Your task to perform on an android device: install app "YouTube Kids" Image 0: 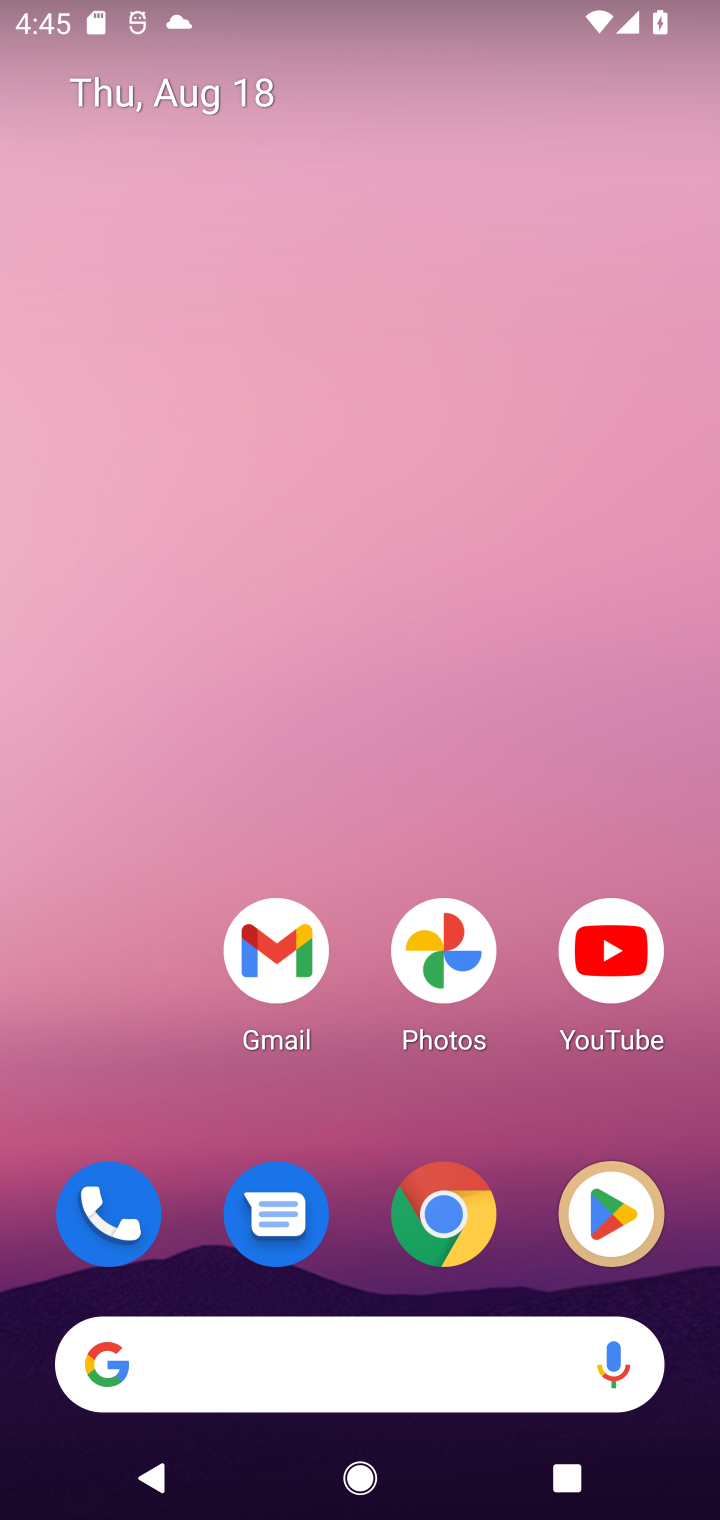
Step 0: drag from (377, 1284) to (328, 31)
Your task to perform on an android device: install app "YouTube Kids" Image 1: 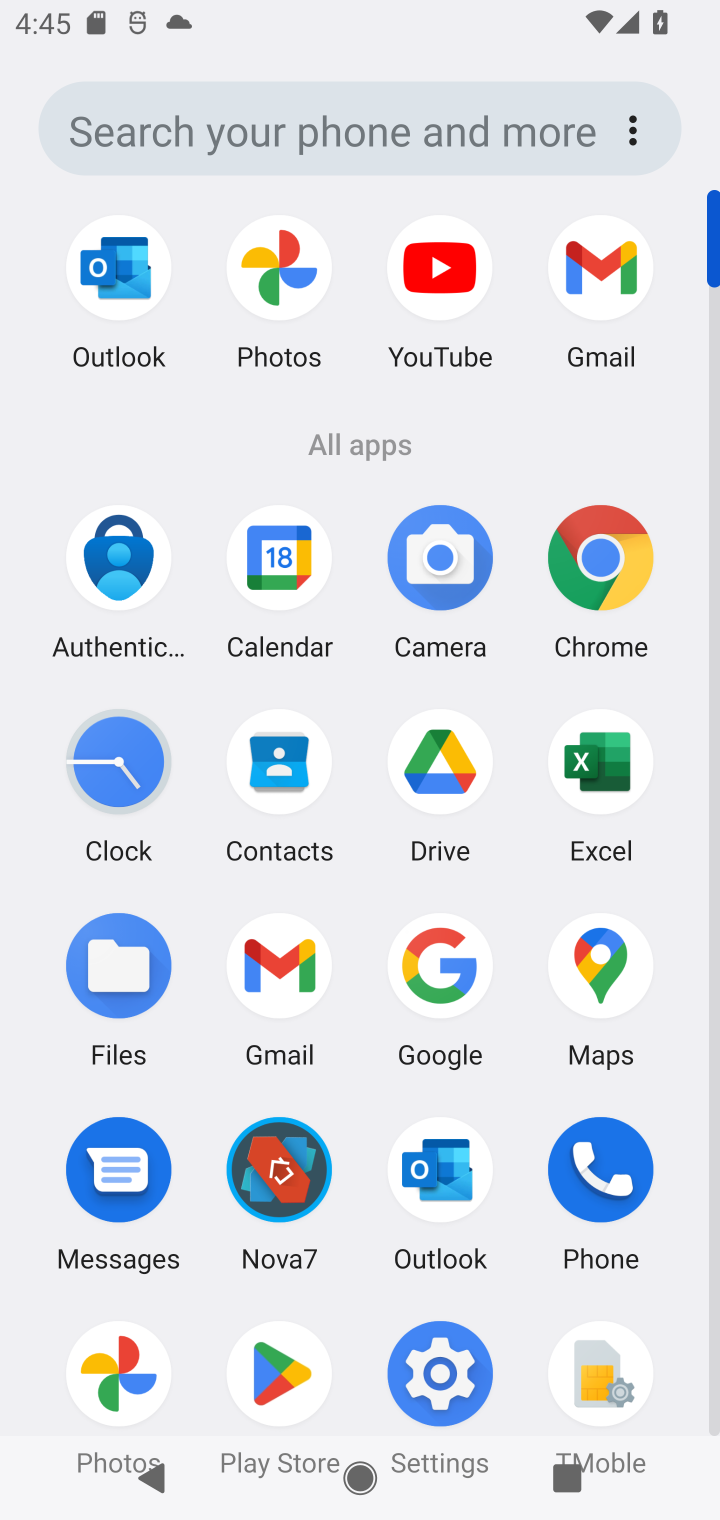
Step 1: click (258, 1351)
Your task to perform on an android device: install app "YouTube Kids" Image 2: 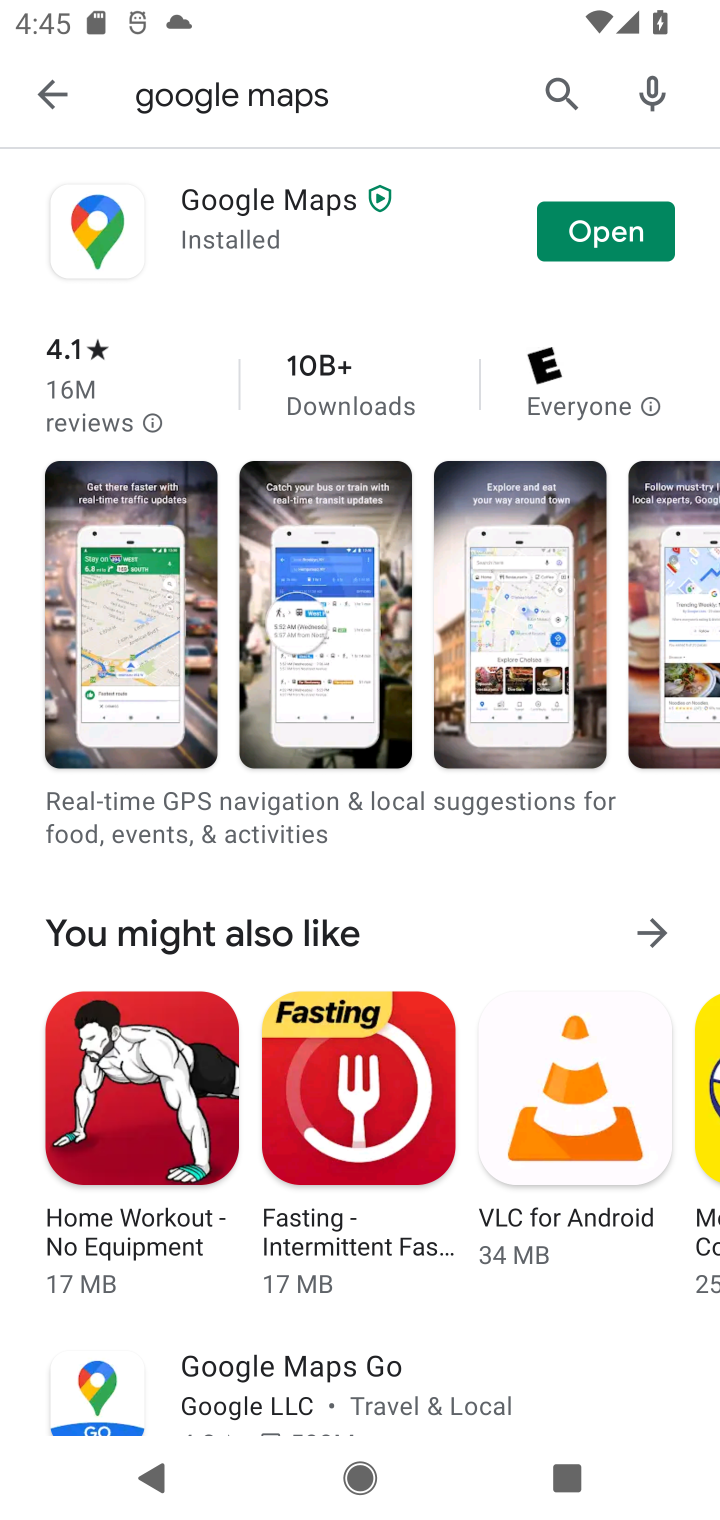
Step 2: click (284, 100)
Your task to perform on an android device: install app "YouTube Kids" Image 3: 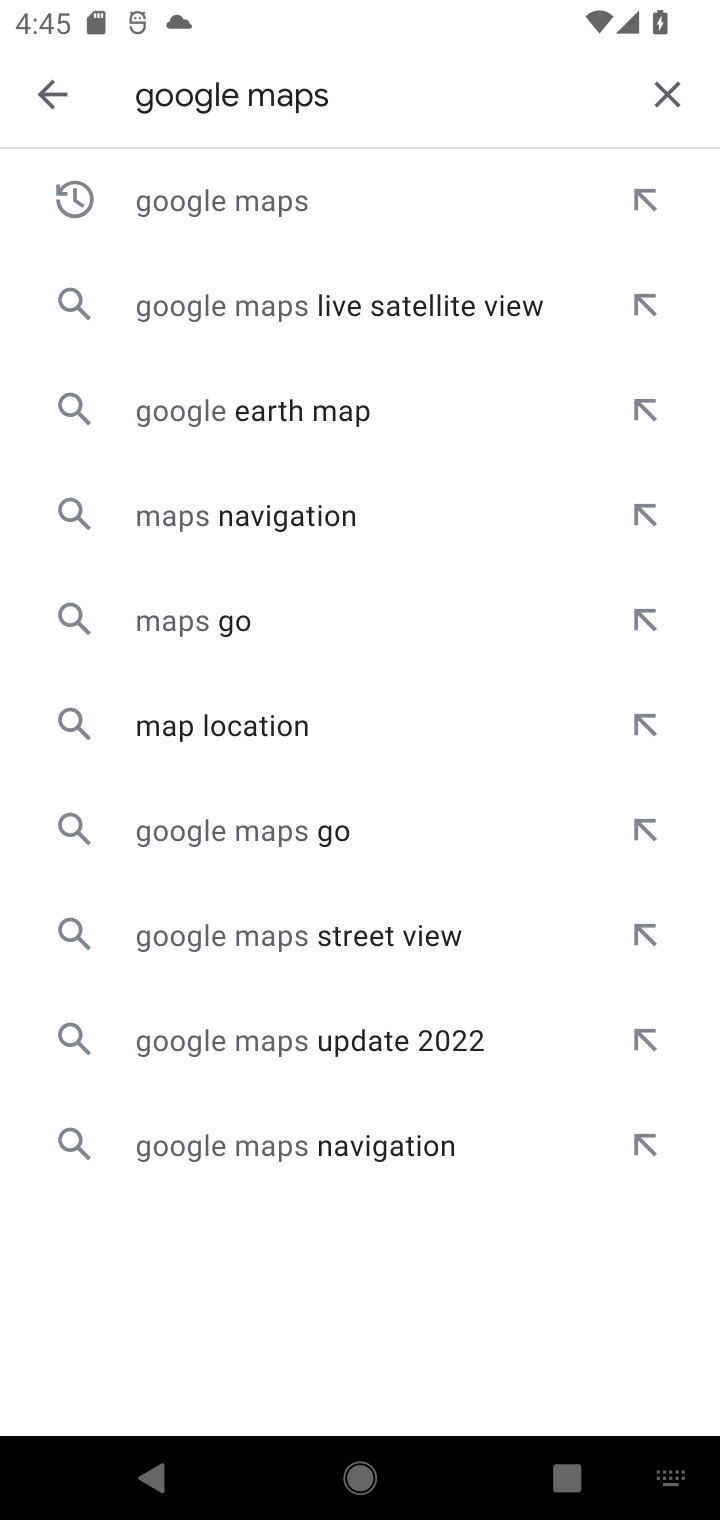
Step 3: click (666, 87)
Your task to perform on an android device: install app "YouTube Kids" Image 4: 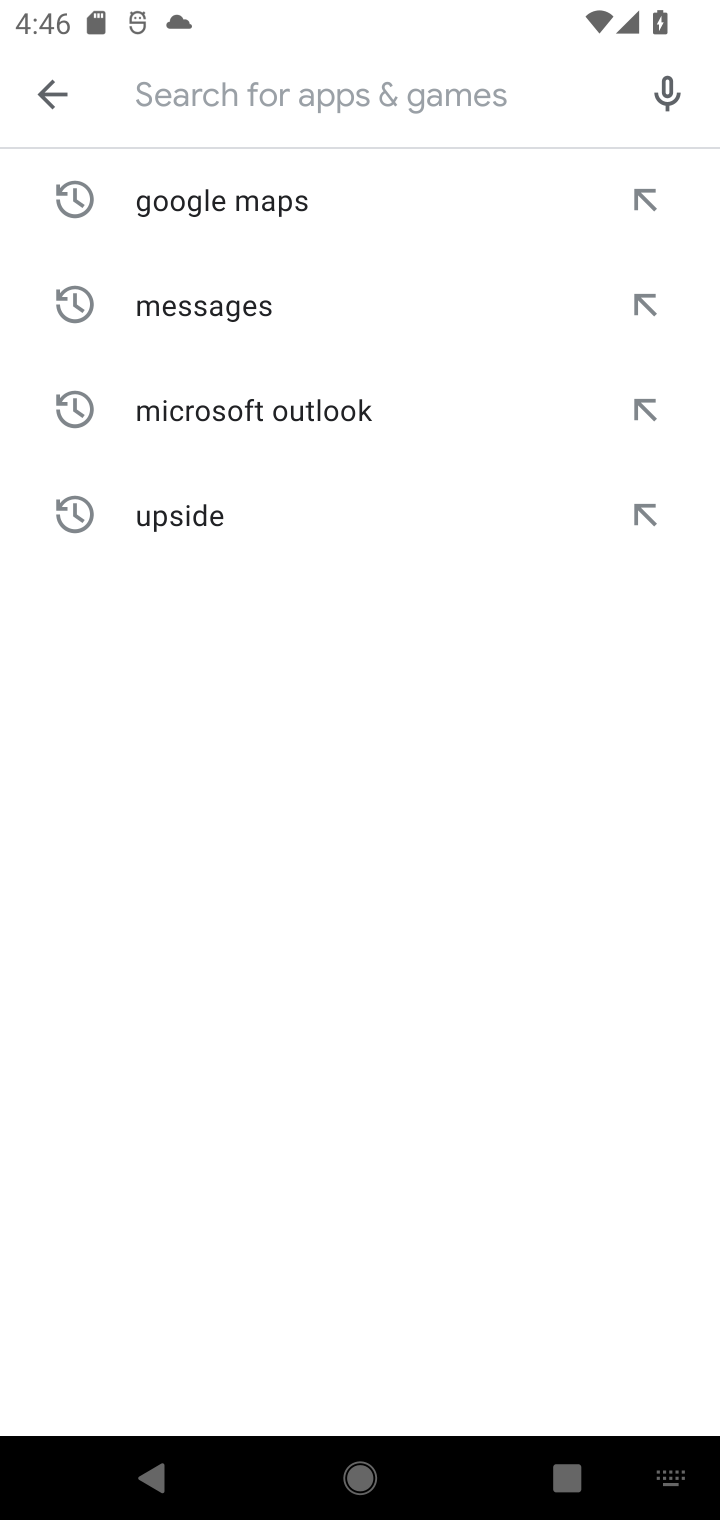
Step 4: type "Youtube kids"
Your task to perform on an android device: install app "YouTube Kids" Image 5: 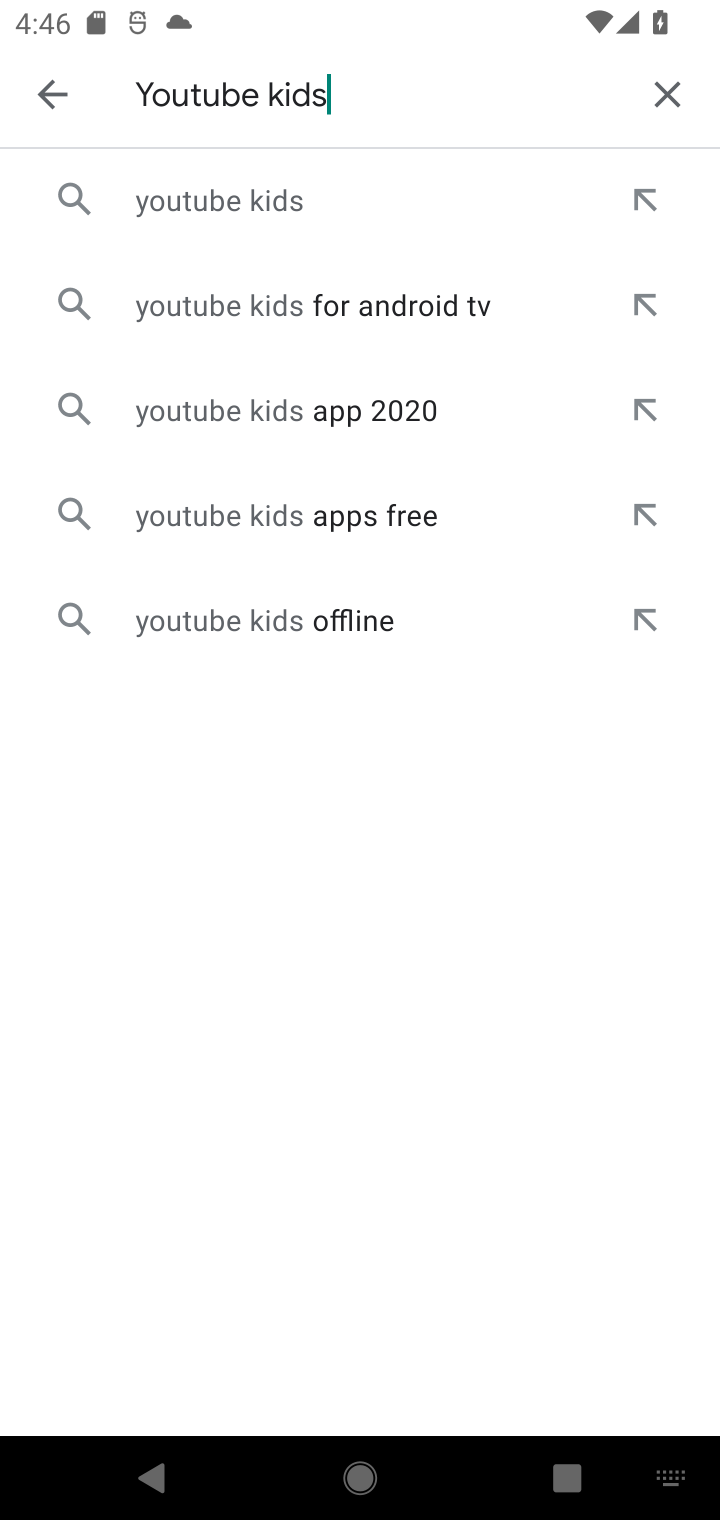
Step 5: click (206, 187)
Your task to perform on an android device: install app "YouTube Kids" Image 6: 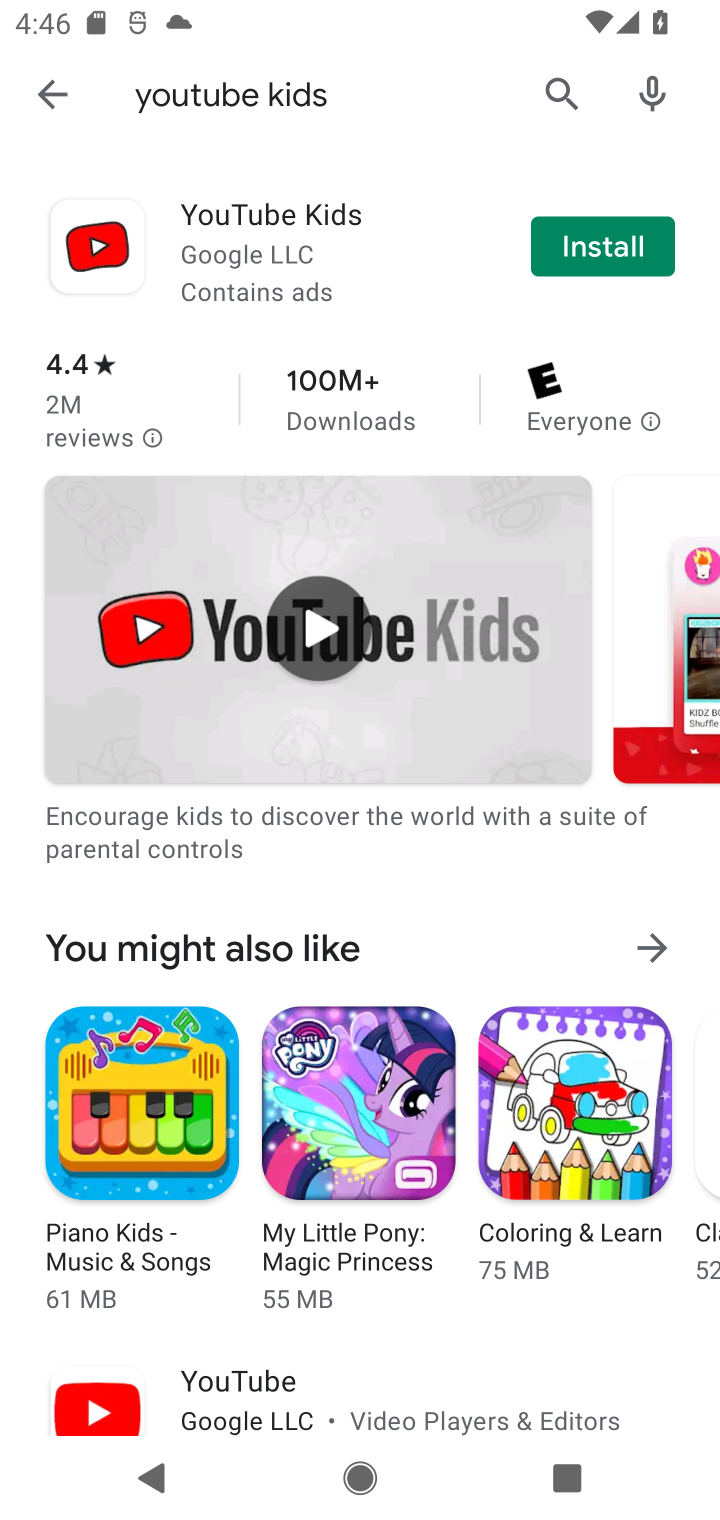
Step 6: click (624, 245)
Your task to perform on an android device: install app "YouTube Kids" Image 7: 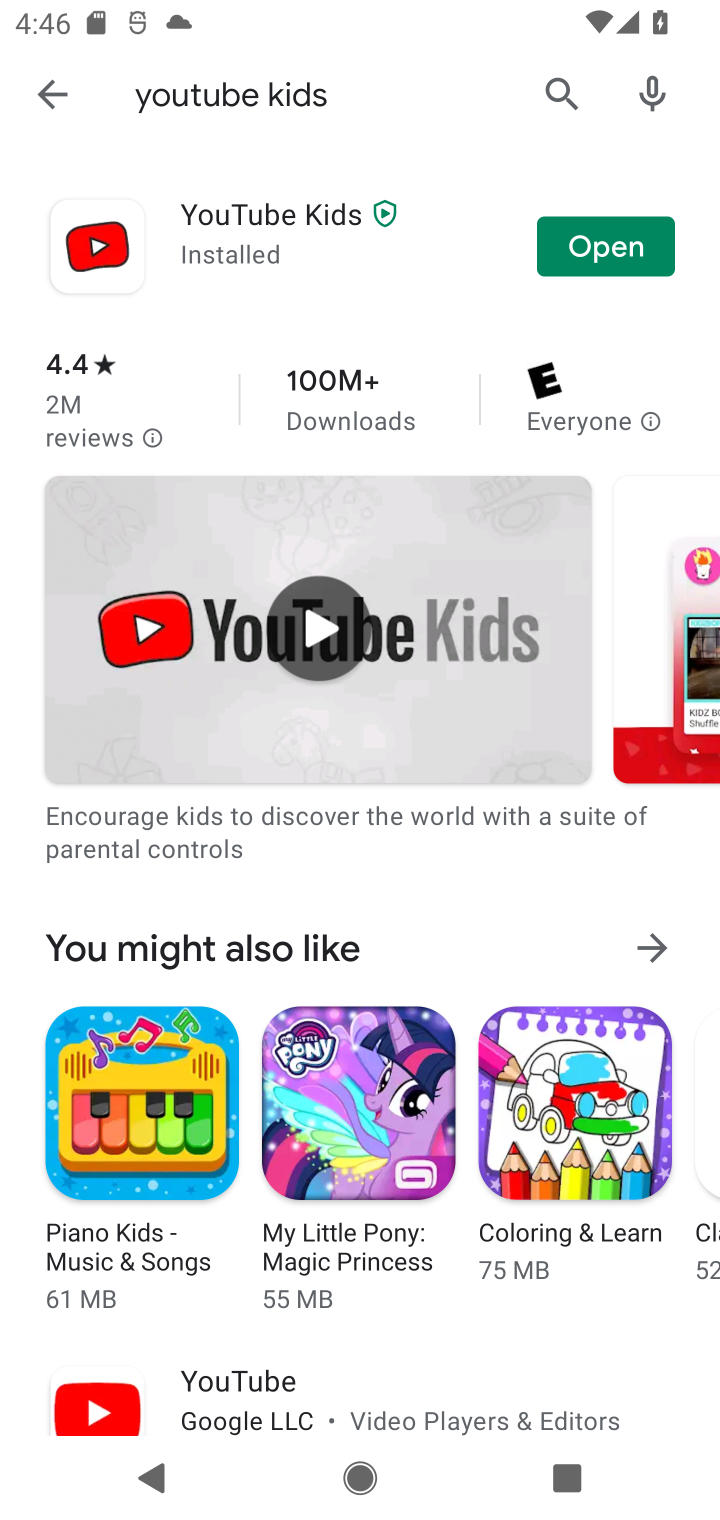
Step 7: task complete